Your task to perform on an android device: turn off data saver in the chrome app Image 0: 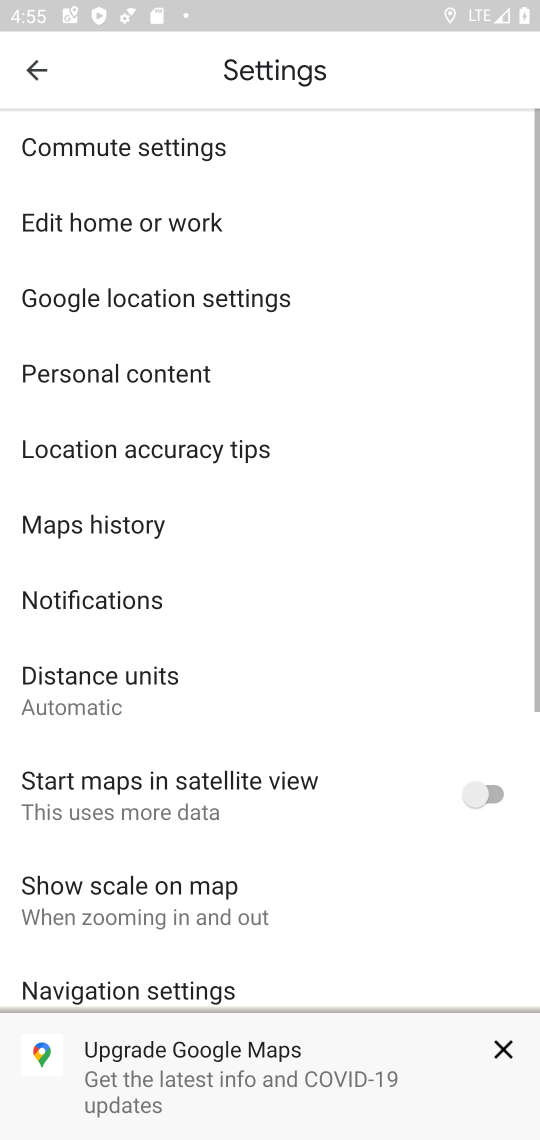
Step 0: press home button
Your task to perform on an android device: turn off data saver in the chrome app Image 1: 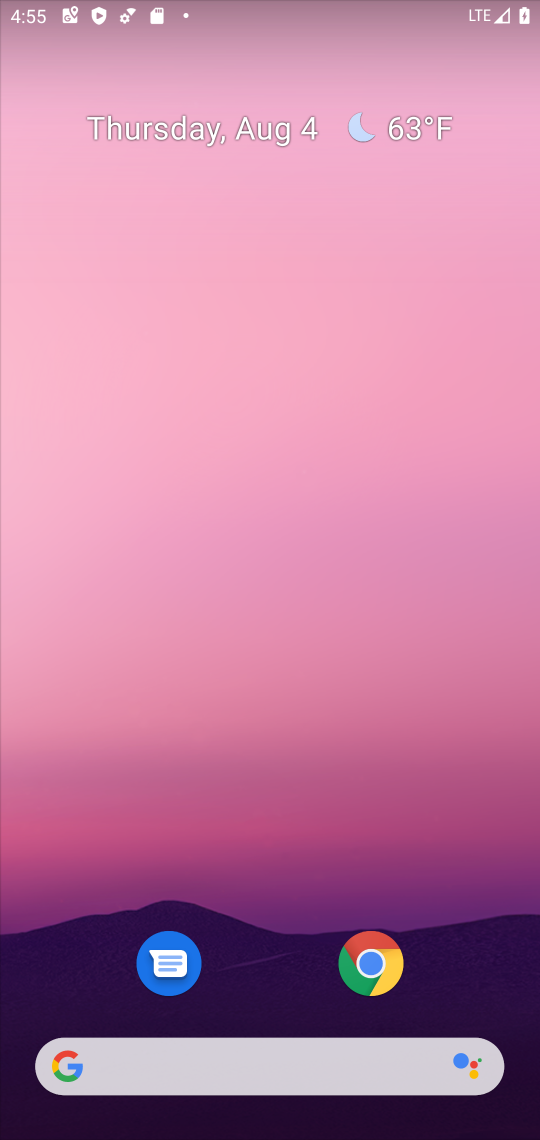
Step 1: click (378, 961)
Your task to perform on an android device: turn off data saver in the chrome app Image 2: 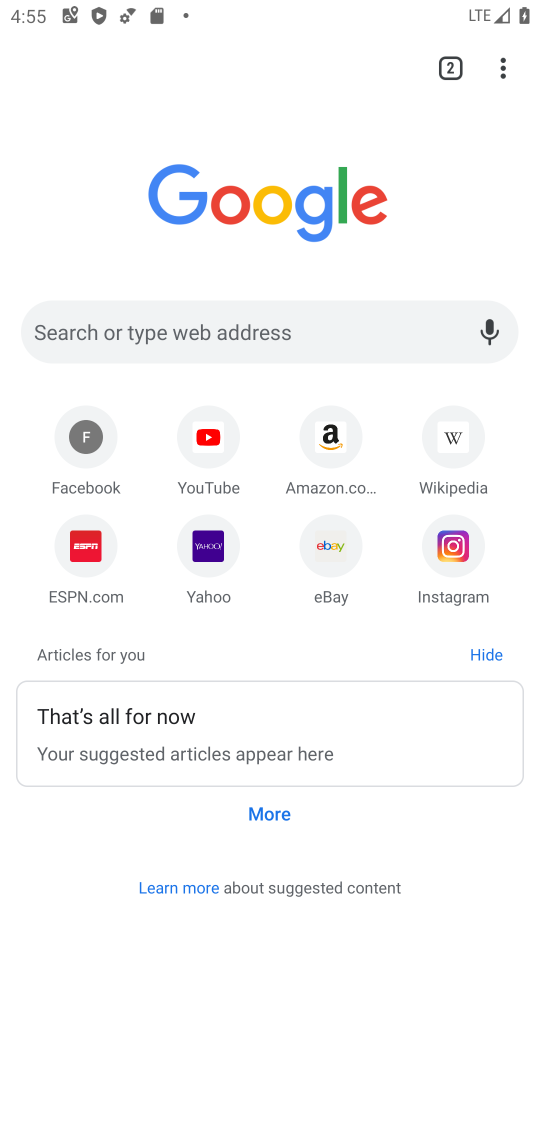
Step 2: click (501, 62)
Your task to perform on an android device: turn off data saver in the chrome app Image 3: 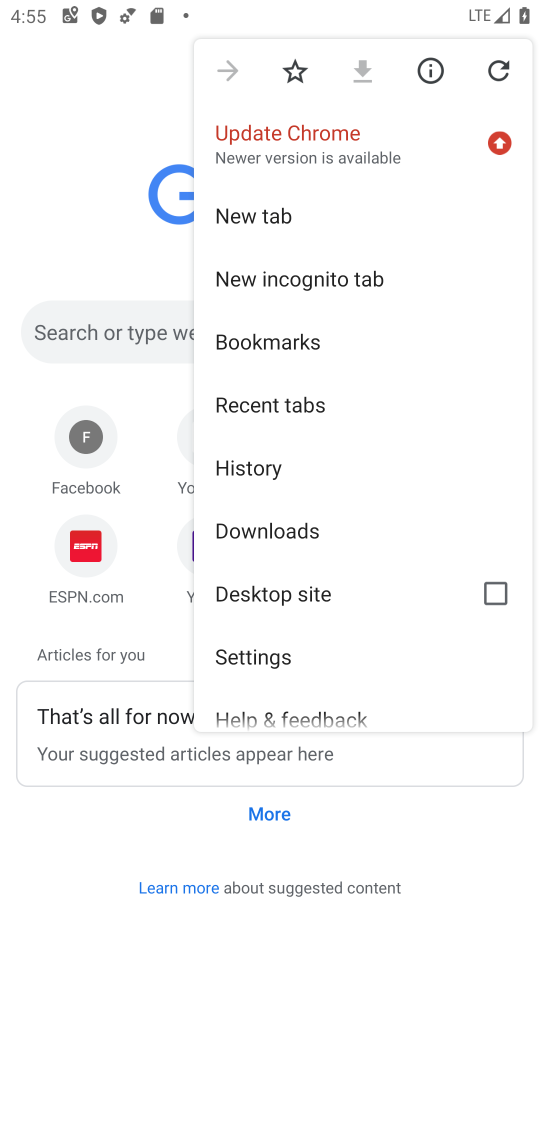
Step 3: click (273, 644)
Your task to perform on an android device: turn off data saver in the chrome app Image 4: 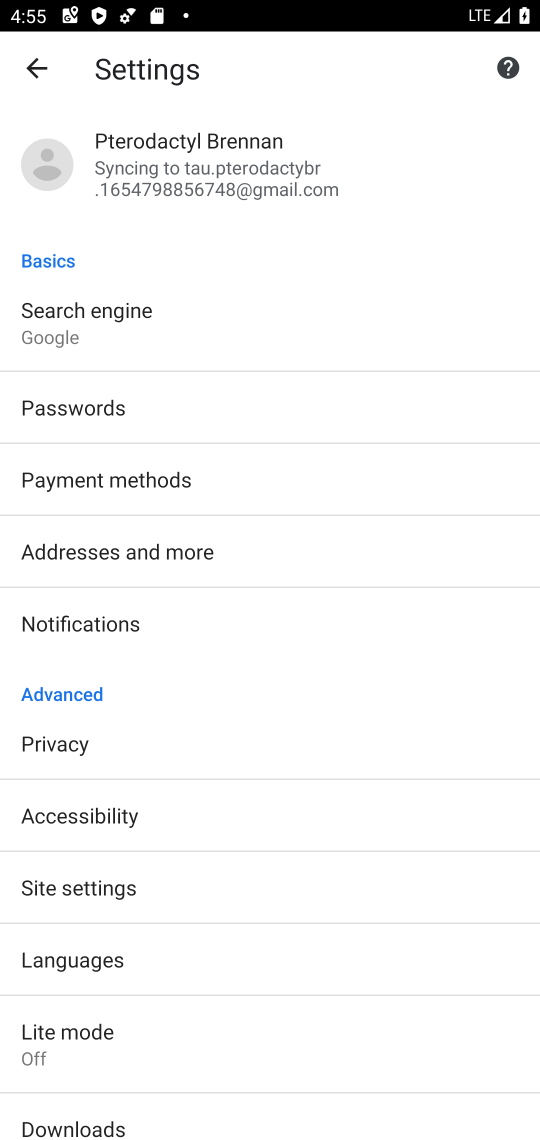
Step 4: click (79, 1036)
Your task to perform on an android device: turn off data saver in the chrome app Image 5: 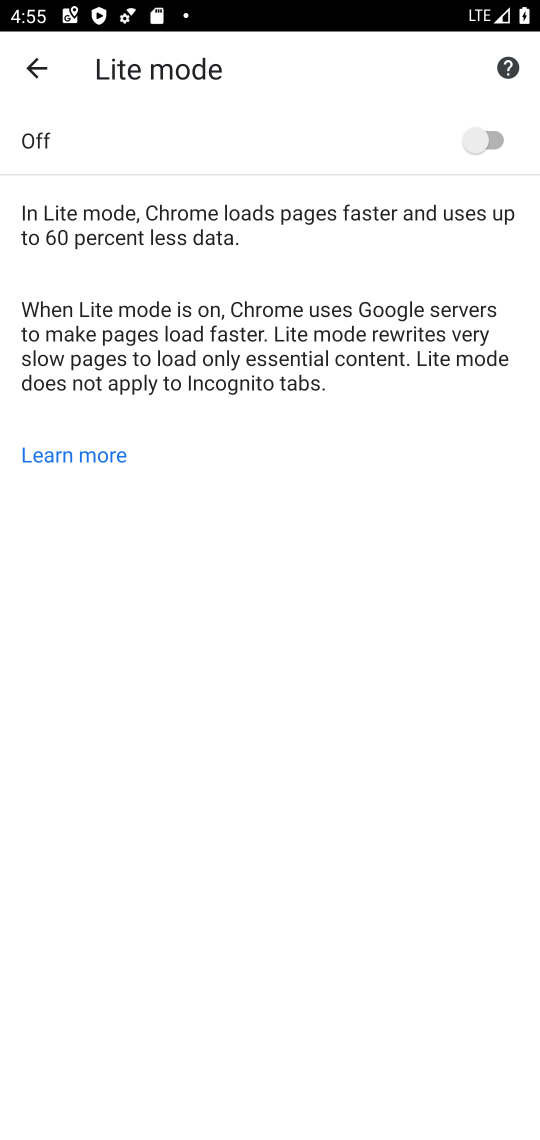
Step 5: task complete